Your task to perform on an android device: open app "Walmart Shopping & Grocery" Image 0: 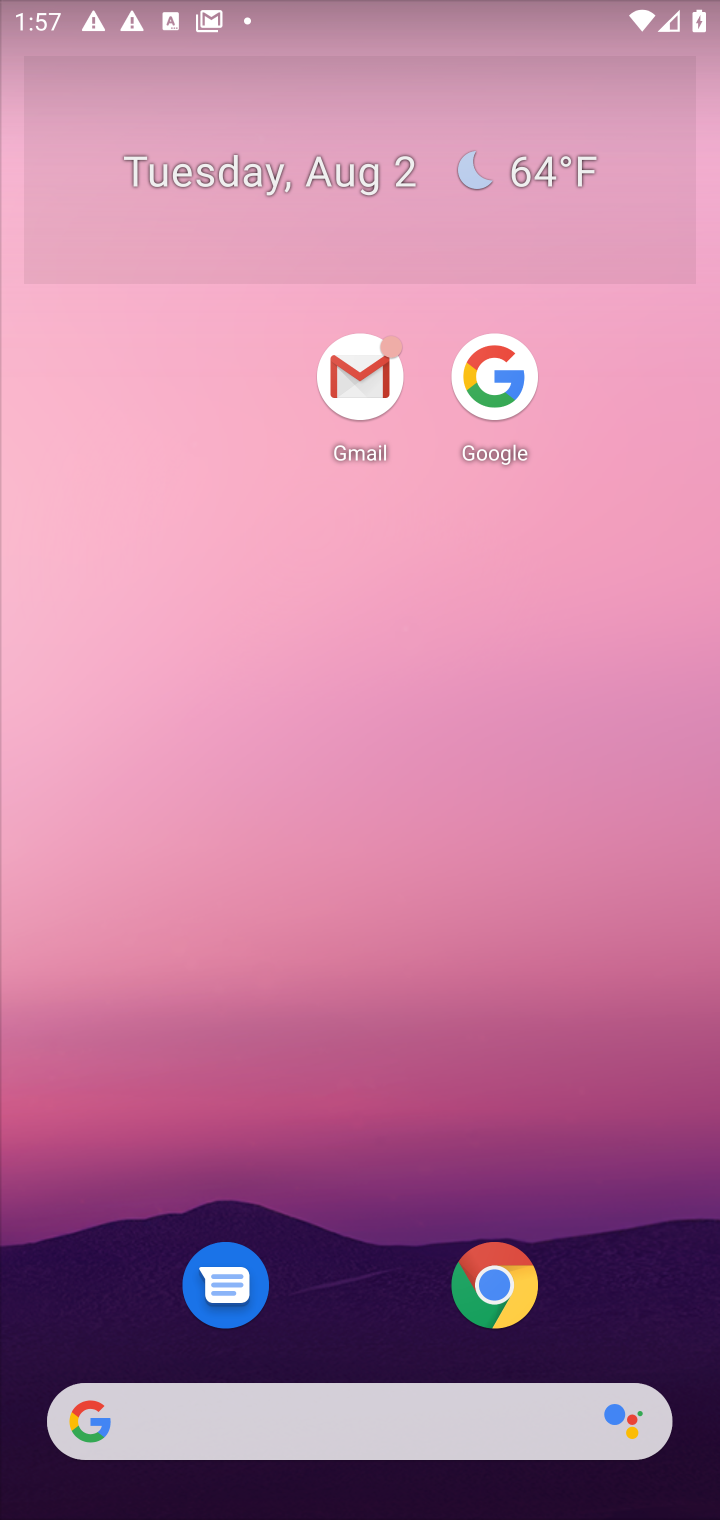
Step 0: drag from (379, 1289) to (488, 108)
Your task to perform on an android device: open app "Walmart Shopping & Grocery" Image 1: 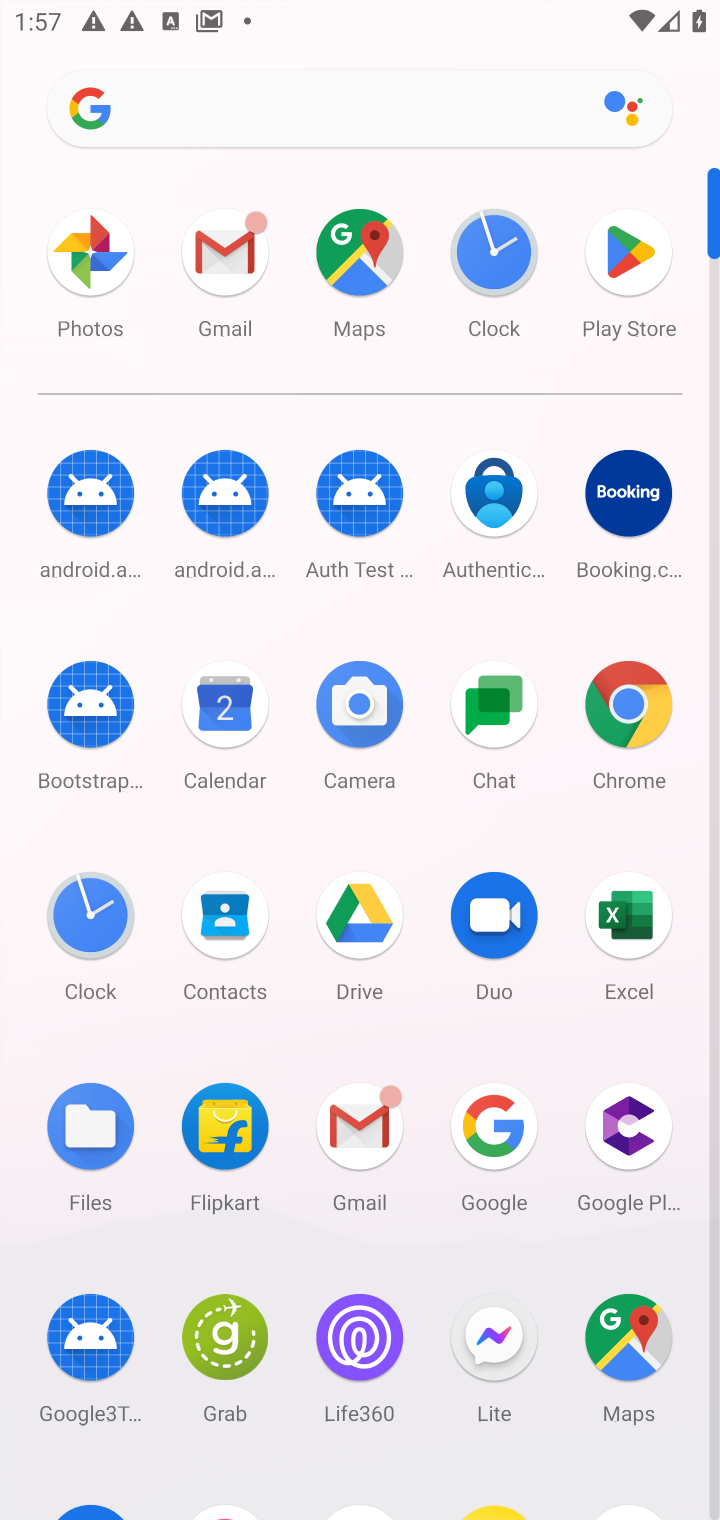
Step 1: drag from (537, 1124) to (578, 512)
Your task to perform on an android device: open app "Walmart Shopping & Grocery" Image 2: 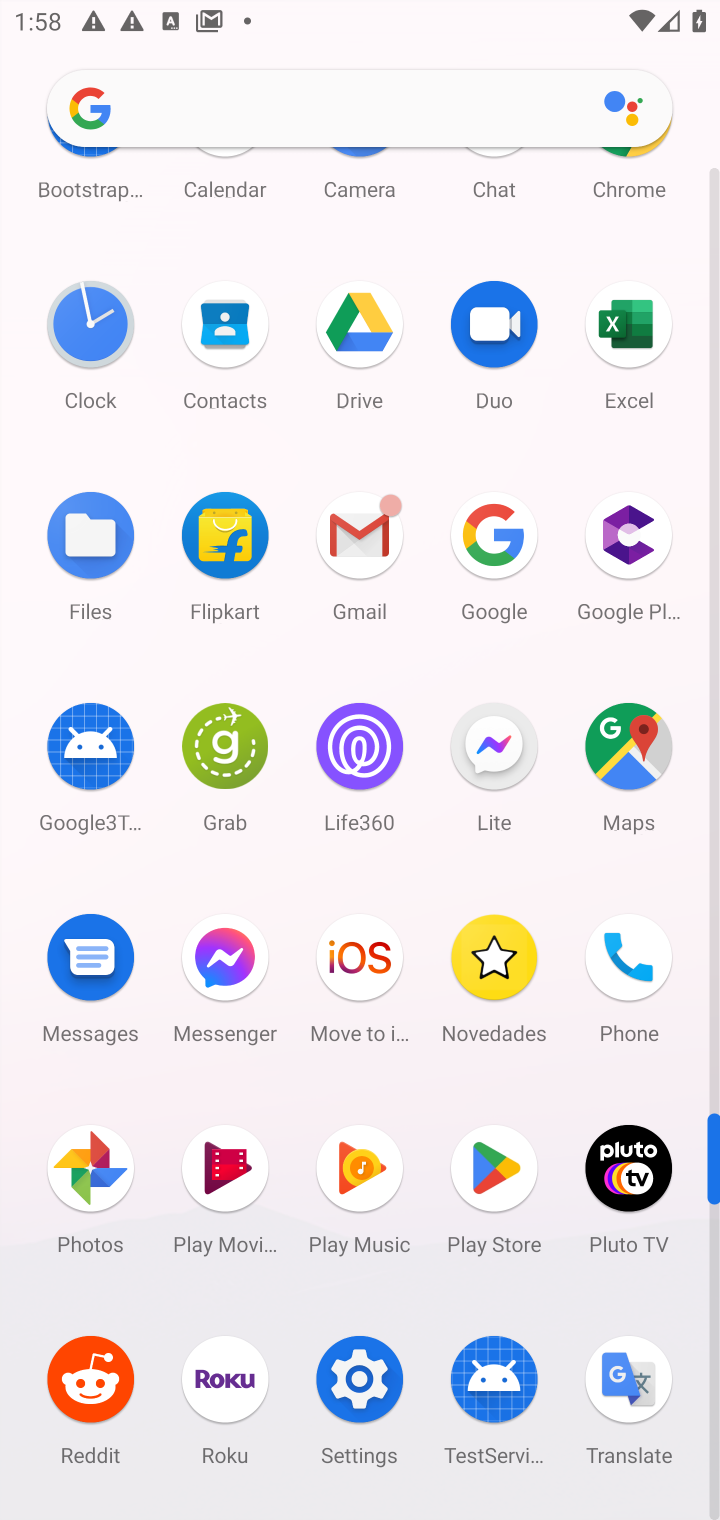
Step 2: click (503, 1179)
Your task to perform on an android device: open app "Walmart Shopping & Grocery" Image 3: 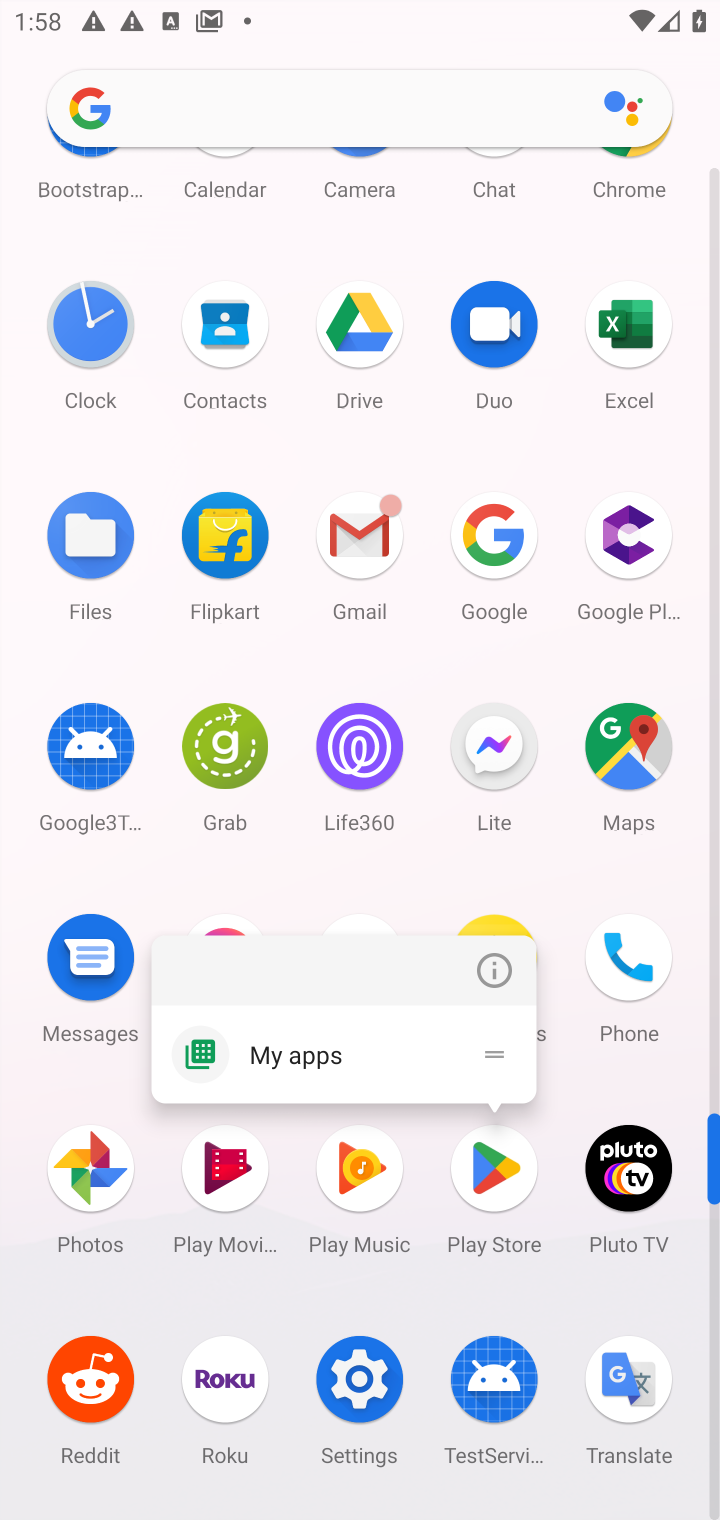
Step 3: click (503, 1179)
Your task to perform on an android device: open app "Walmart Shopping & Grocery" Image 4: 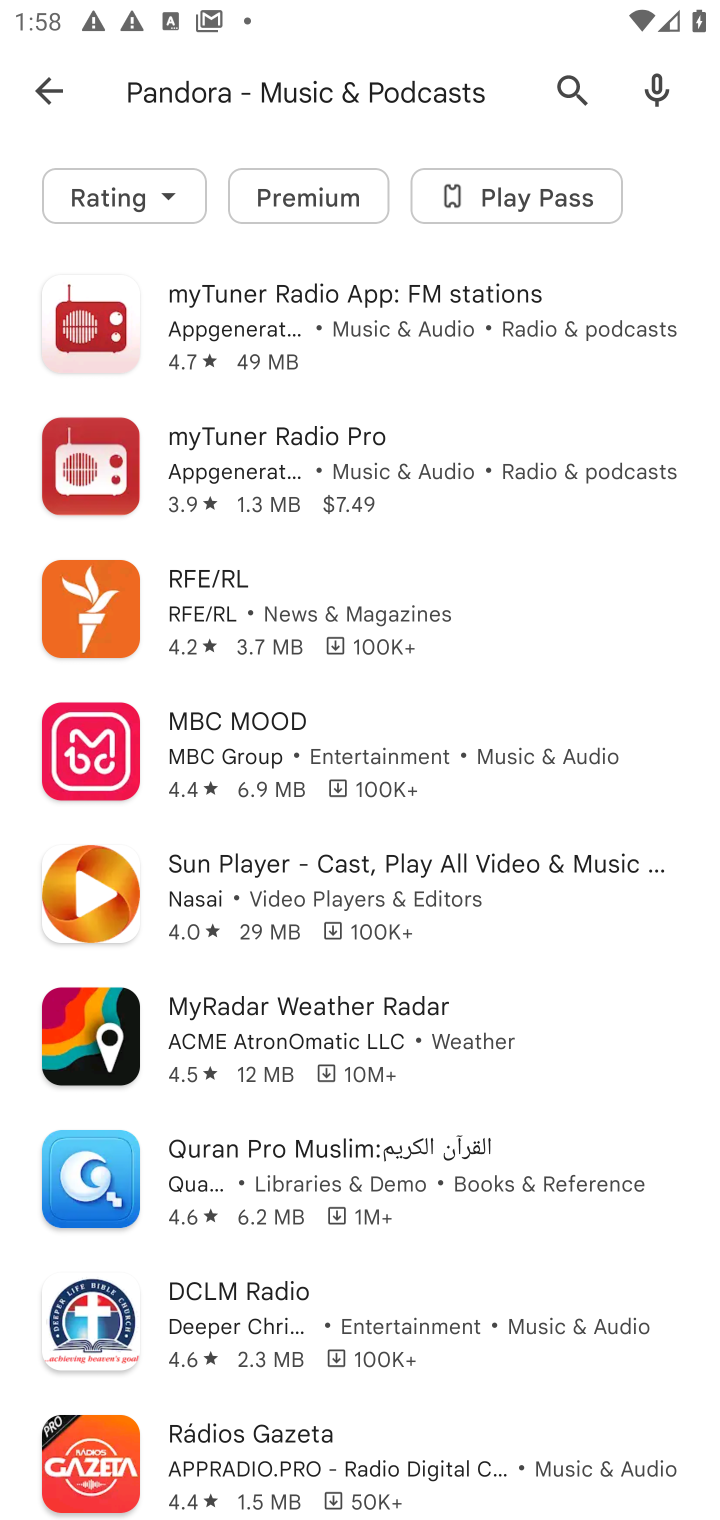
Step 4: click (384, 83)
Your task to perform on an android device: open app "Walmart Shopping & Grocery" Image 5: 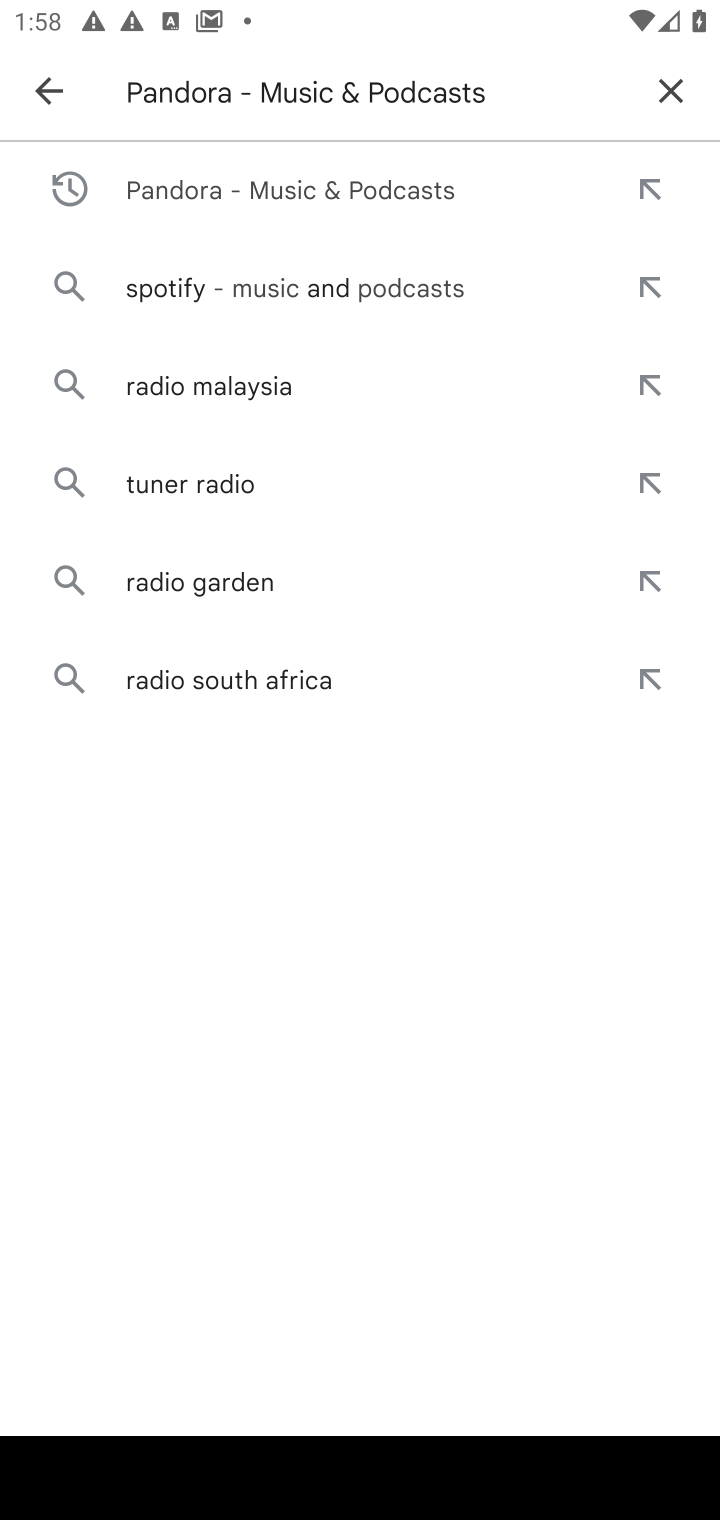
Step 5: click (660, 94)
Your task to perform on an android device: open app "Walmart Shopping & Grocery" Image 6: 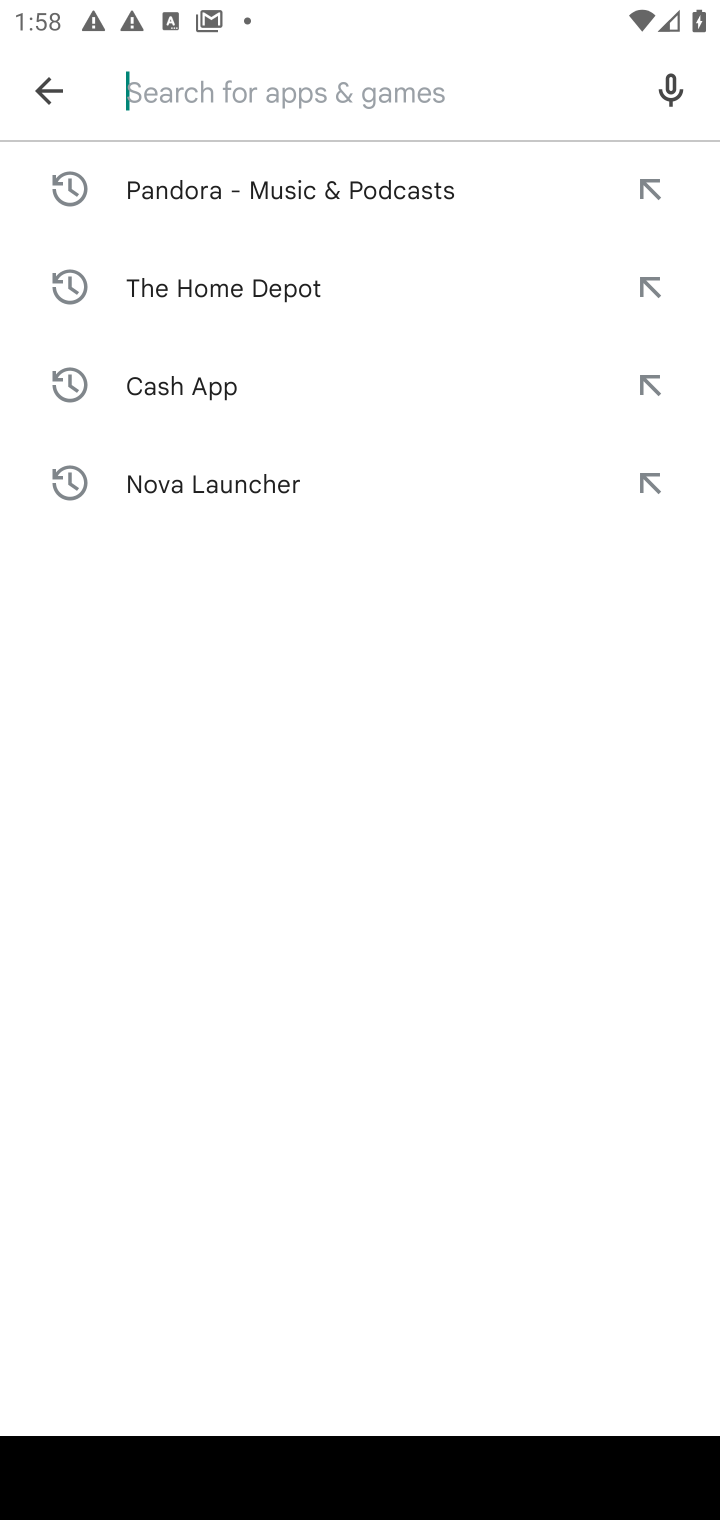
Step 6: type "Walmart Shopping & Grocery"
Your task to perform on an android device: open app "Walmart Shopping & Grocery" Image 7: 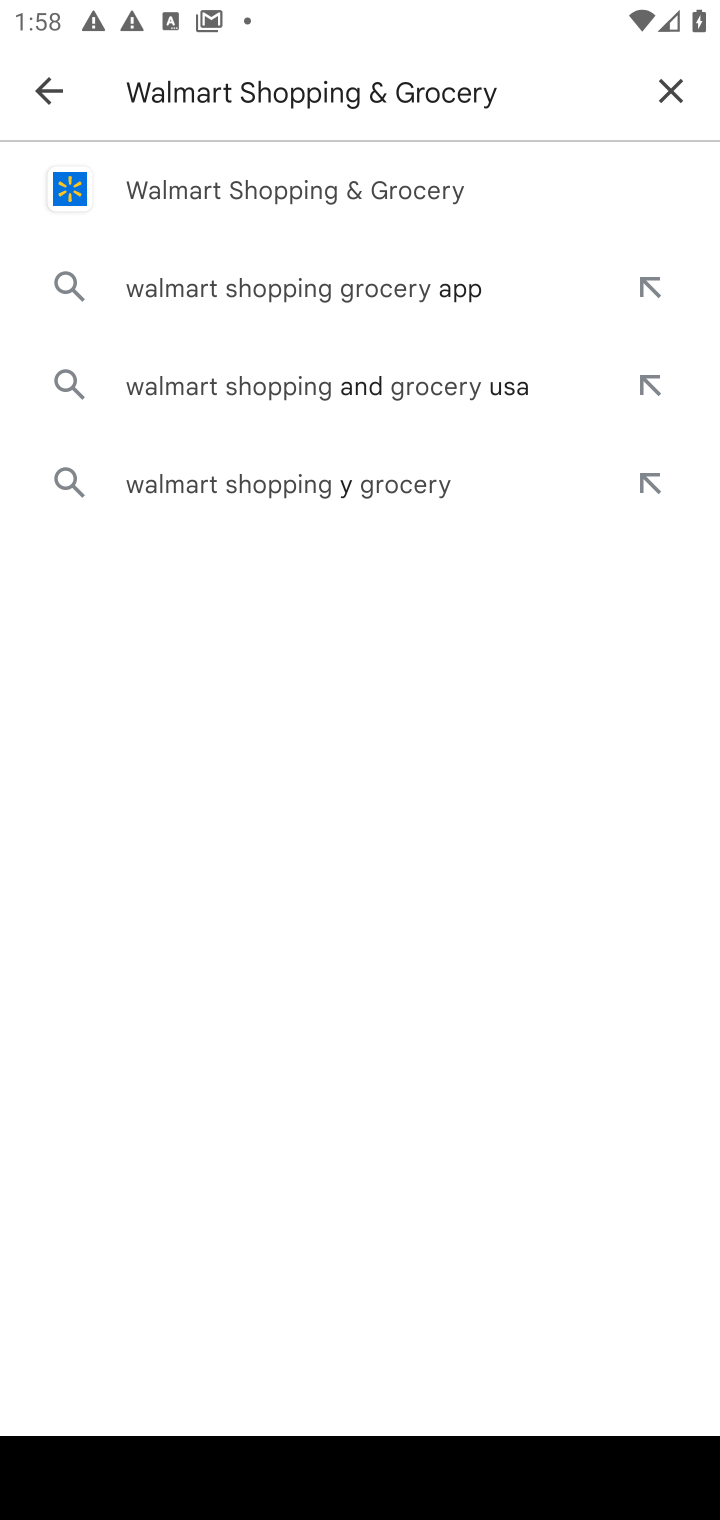
Step 7: press enter
Your task to perform on an android device: open app "Walmart Shopping & Grocery" Image 8: 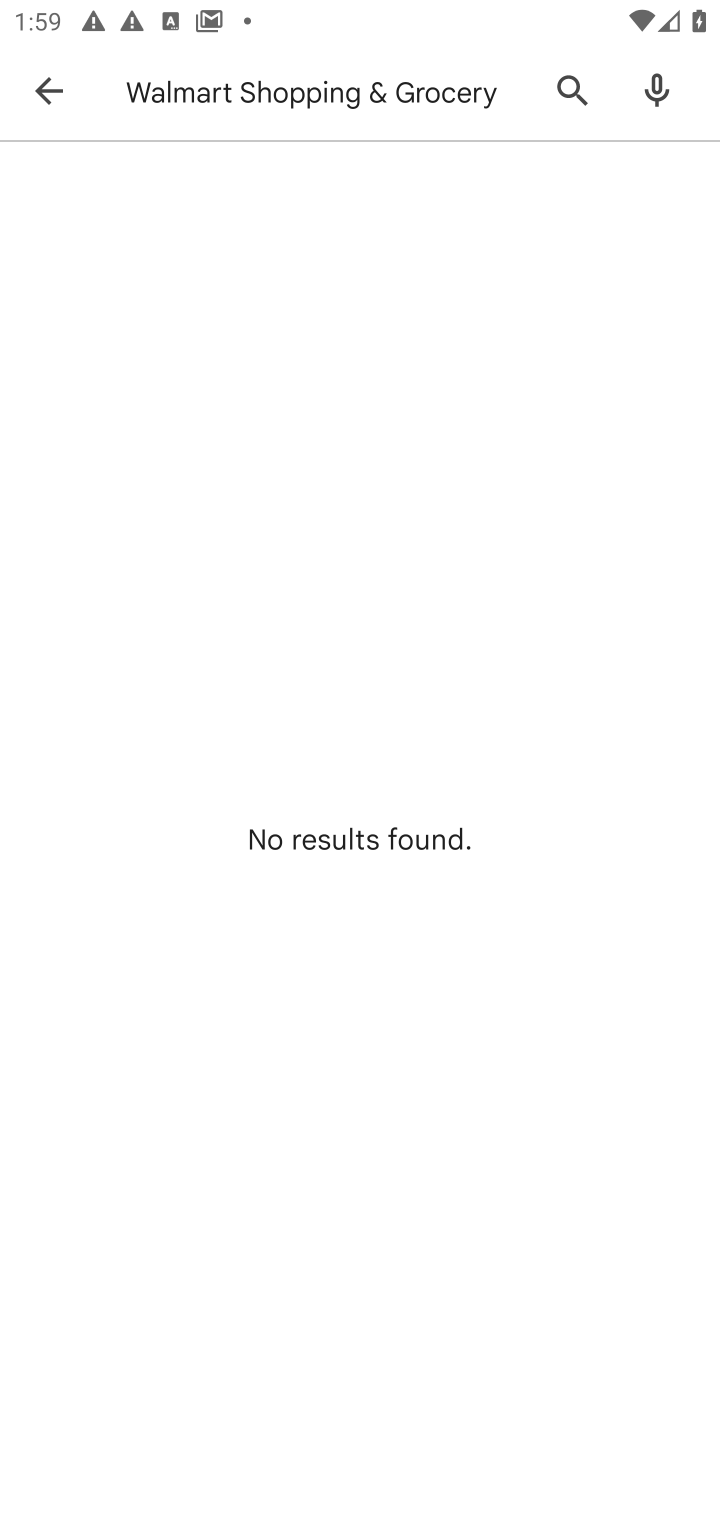
Step 8: task complete